Your task to perform on an android device: Open sound settings Image 0: 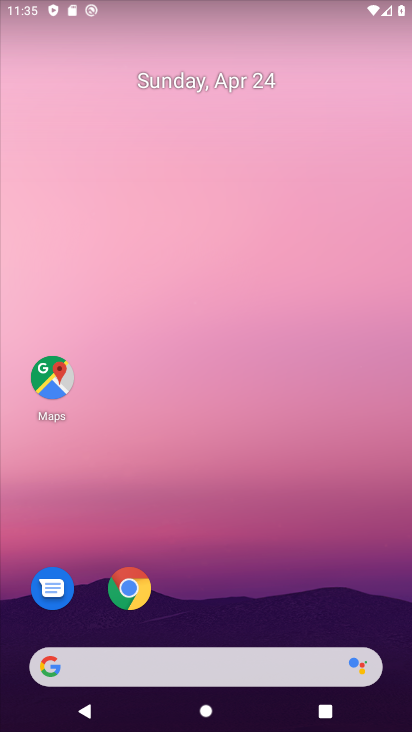
Step 0: drag from (271, 610) to (262, 48)
Your task to perform on an android device: Open sound settings Image 1: 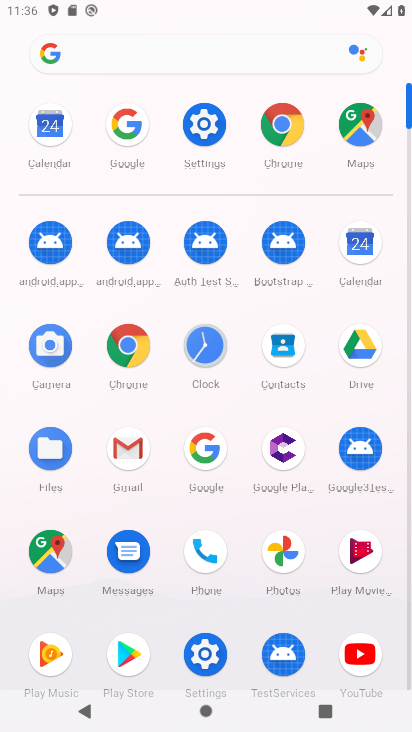
Step 1: click (204, 121)
Your task to perform on an android device: Open sound settings Image 2: 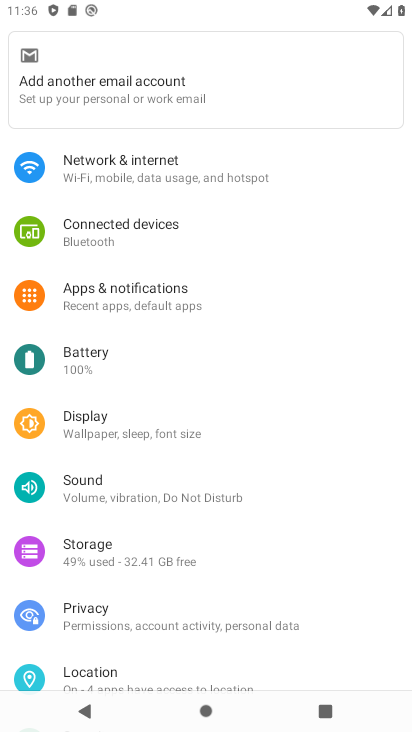
Step 2: click (148, 489)
Your task to perform on an android device: Open sound settings Image 3: 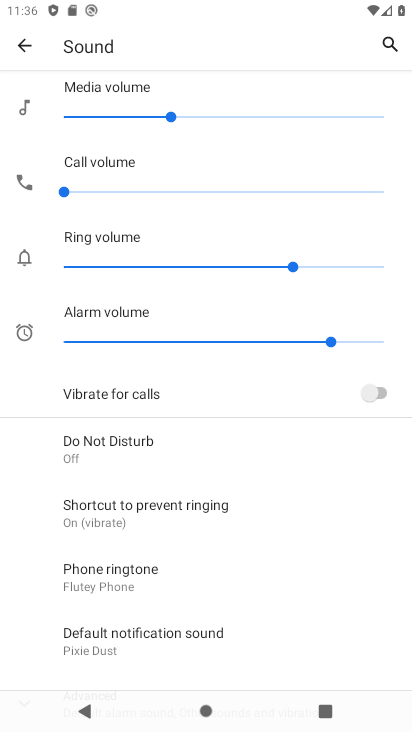
Step 3: task complete